Your task to perform on an android device: Open location settings Image 0: 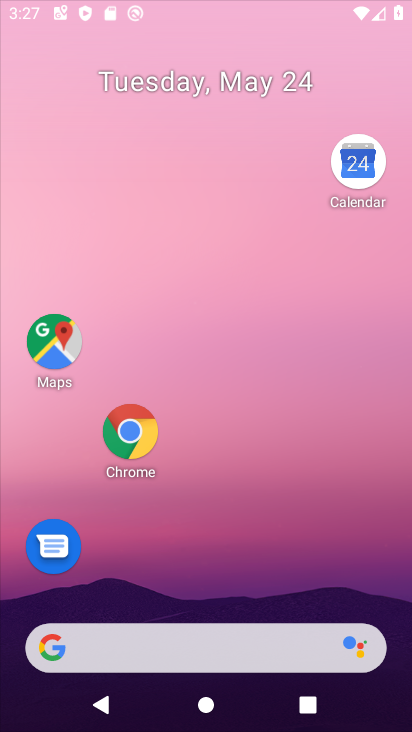
Step 0: click (314, 109)
Your task to perform on an android device: Open location settings Image 1: 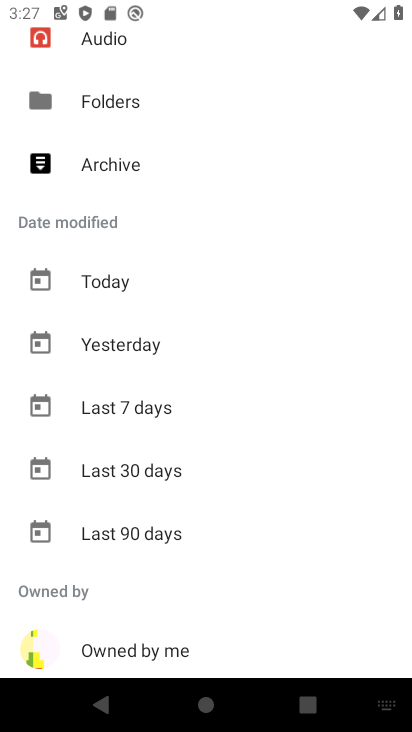
Step 1: press home button
Your task to perform on an android device: Open location settings Image 2: 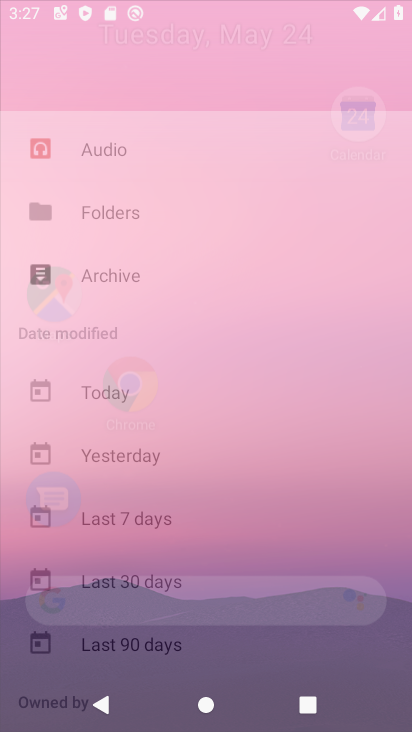
Step 2: drag from (168, 614) to (229, 107)
Your task to perform on an android device: Open location settings Image 3: 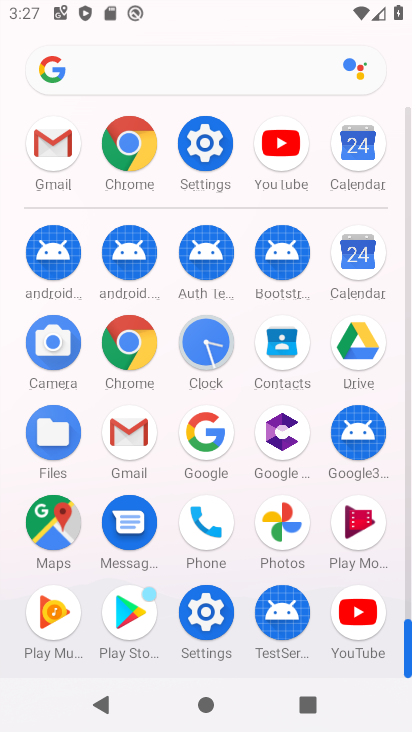
Step 3: click (210, 615)
Your task to perform on an android device: Open location settings Image 4: 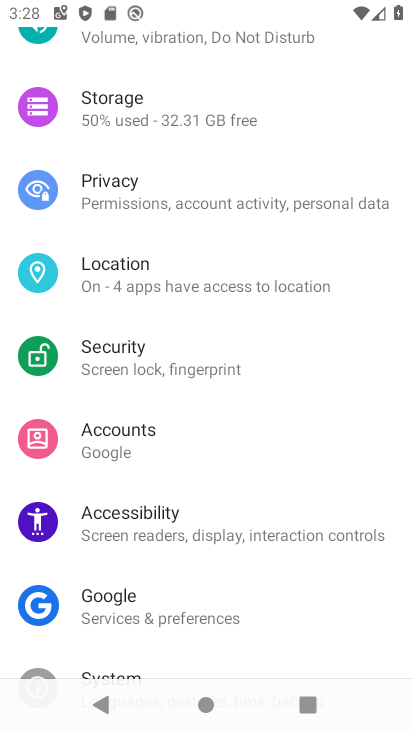
Step 4: click (173, 270)
Your task to perform on an android device: Open location settings Image 5: 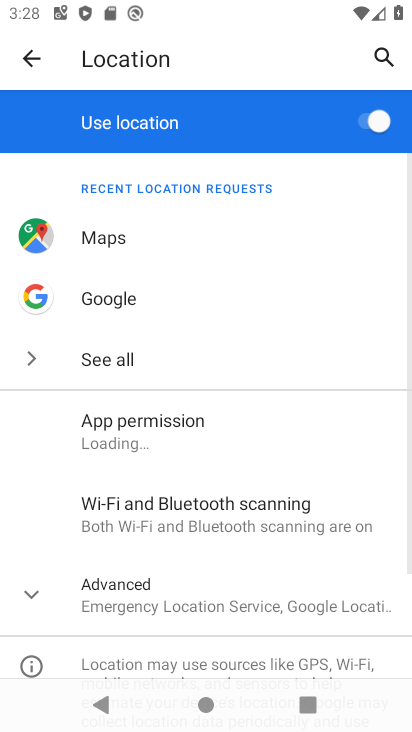
Step 5: task complete